Your task to perform on an android device: Open Google Chrome Image 0: 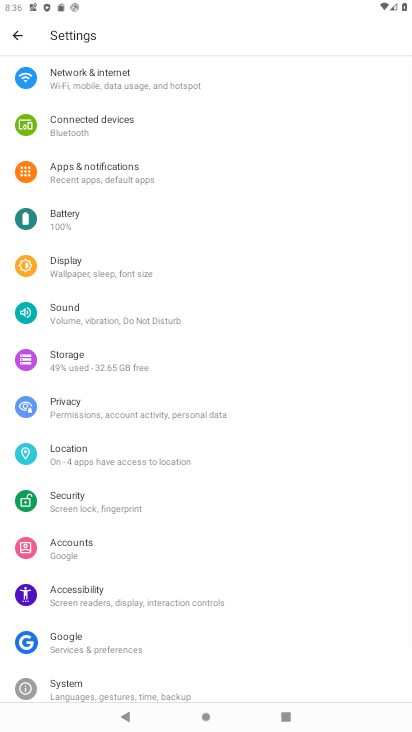
Step 0: press home button
Your task to perform on an android device: Open Google Chrome Image 1: 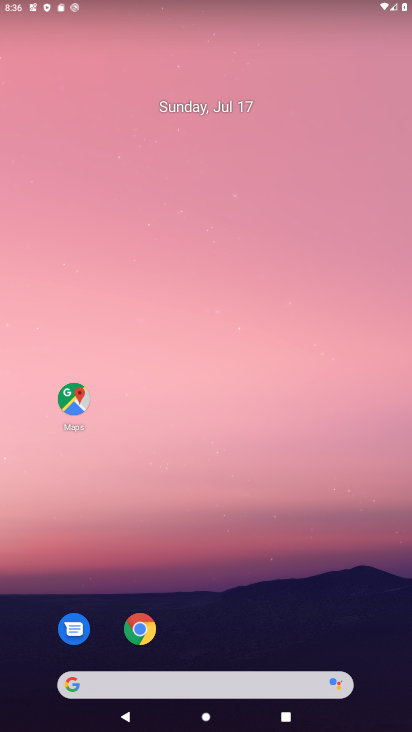
Step 1: click (139, 636)
Your task to perform on an android device: Open Google Chrome Image 2: 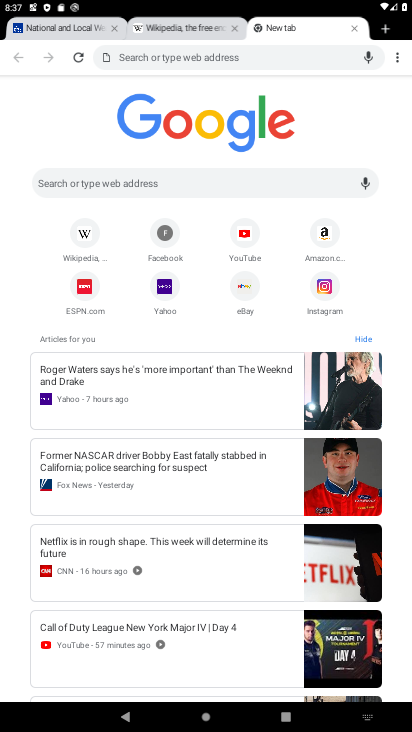
Step 2: task complete